Your task to perform on an android device: find snoozed emails in the gmail app Image 0: 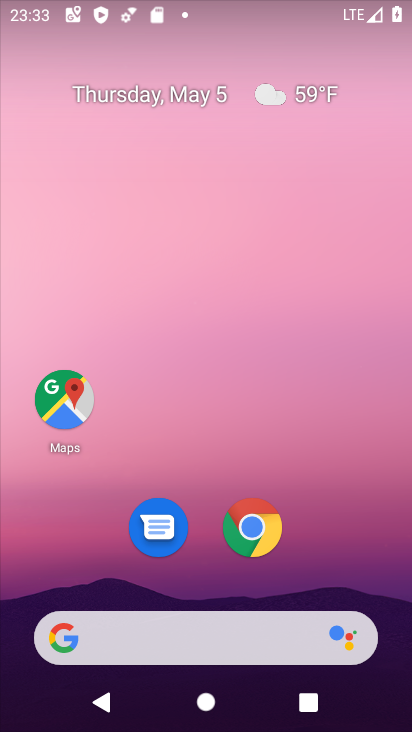
Step 0: drag from (246, 571) to (217, 79)
Your task to perform on an android device: find snoozed emails in the gmail app Image 1: 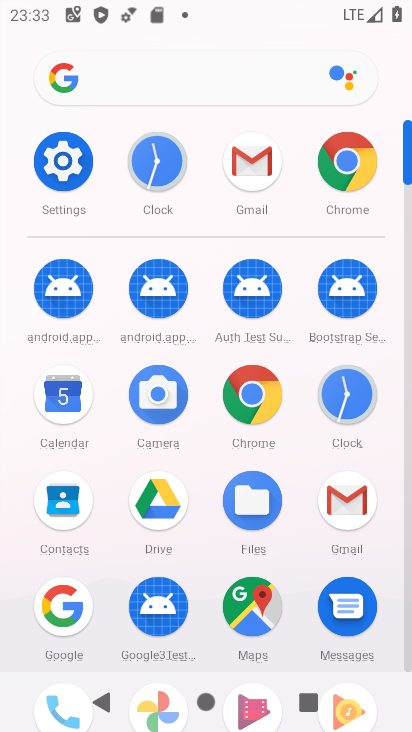
Step 1: click (331, 507)
Your task to perform on an android device: find snoozed emails in the gmail app Image 2: 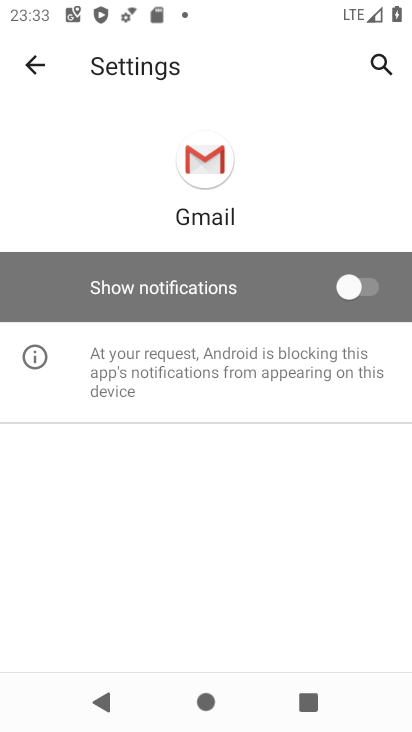
Step 2: click (34, 55)
Your task to perform on an android device: find snoozed emails in the gmail app Image 3: 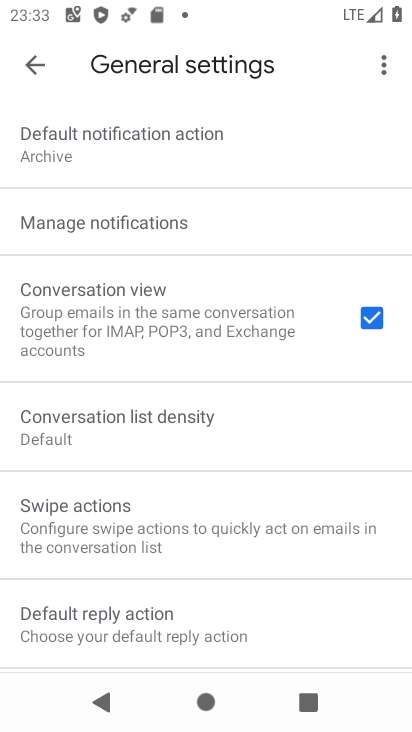
Step 3: click (35, 54)
Your task to perform on an android device: find snoozed emails in the gmail app Image 4: 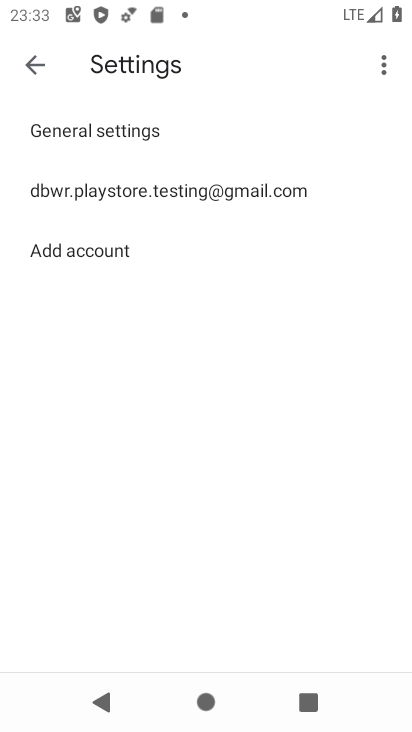
Step 4: click (10, 56)
Your task to perform on an android device: find snoozed emails in the gmail app Image 5: 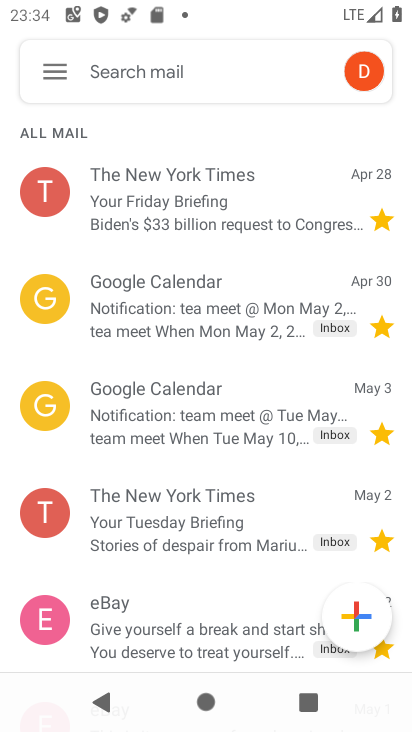
Step 5: click (50, 74)
Your task to perform on an android device: find snoozed emails in the gmail app Image 6: 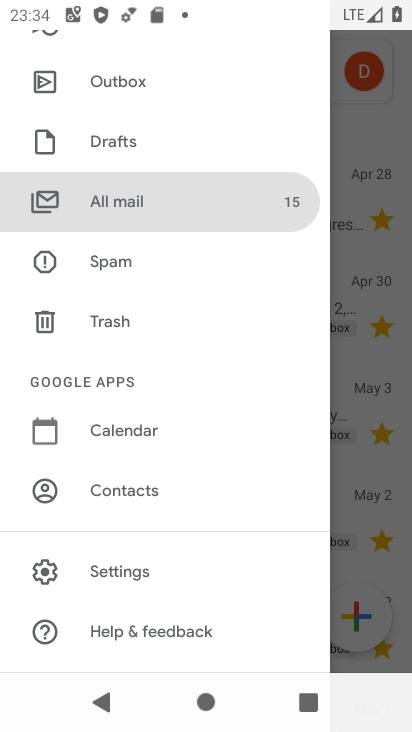
Step 6: drag from (146, 315) to (186, 605)
Your task to perform on an android device: find snoozed emails in the gmail app Image 7: 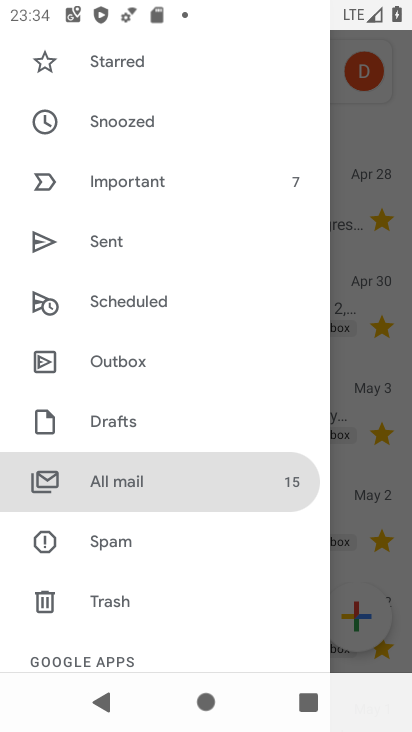
Step 7: drag from (152, 148) to (157, 304)
Your task to perform on an android device: find snoozed emails in the gmail app Image 8: 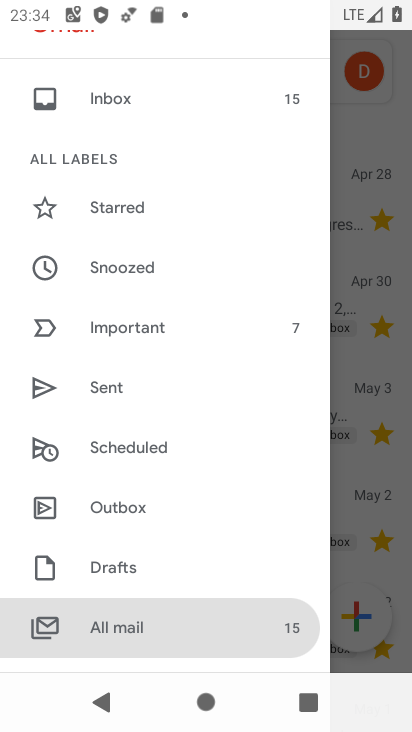
Step 8: click (129, 274)
Your task to perform on an android device: find snoozed emails in the gmail app Image 9: 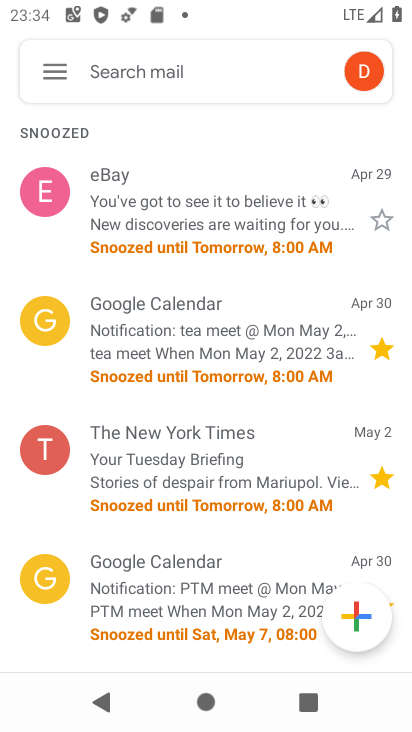
Step 9: task complete